Your task to perform on an android device: Install the Starbucks app Image 0: 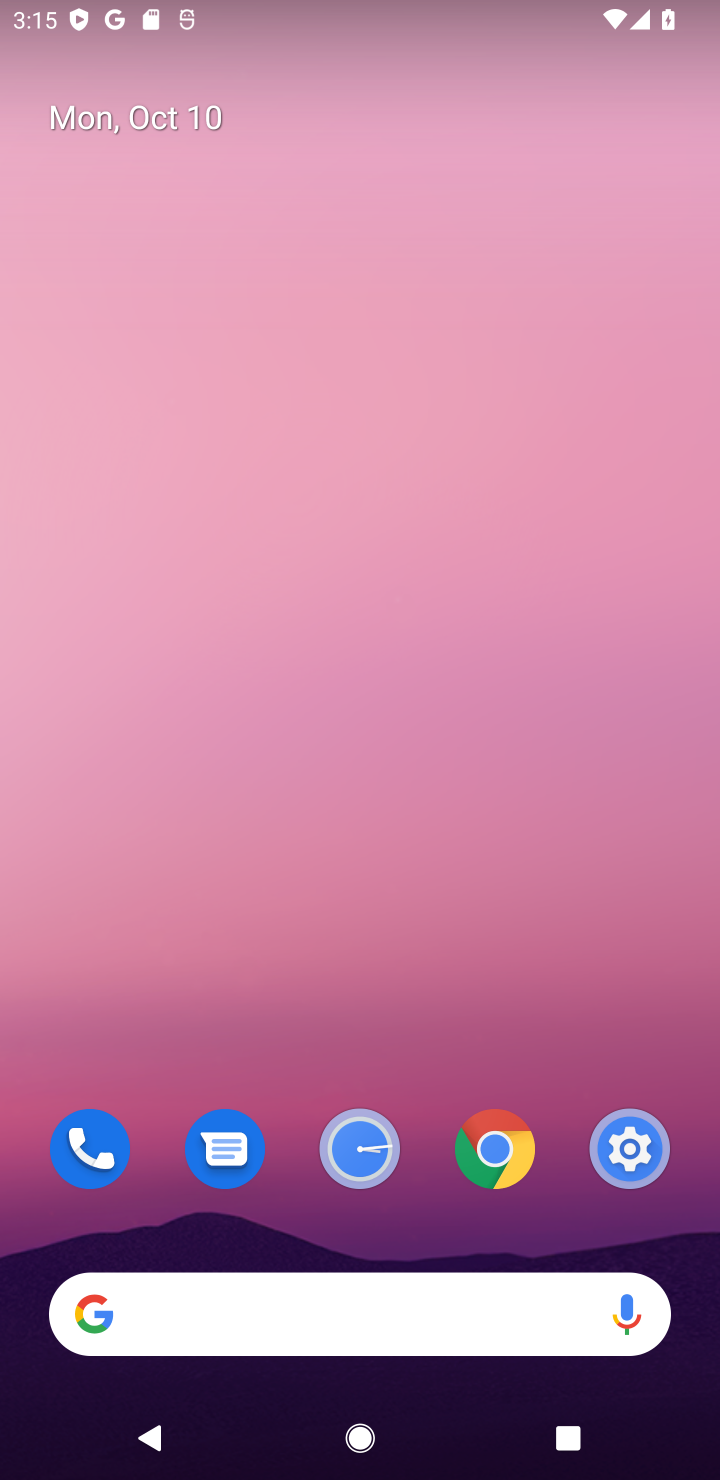
Step 0: drag from (440, 1246) to (466, 137)
Your task to perform on an android device: Install the Starbucks app Image 1: 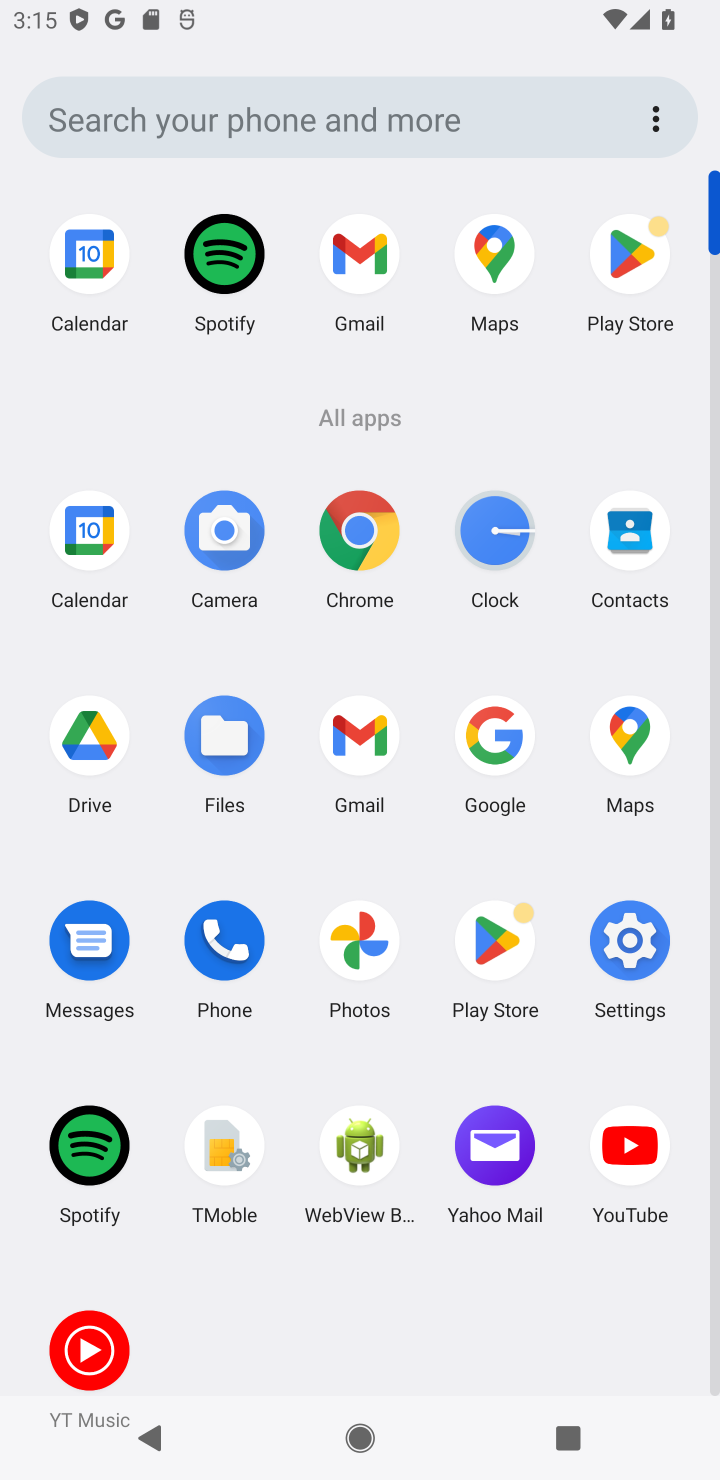
Step 1: click (608, 238)
Your task to perform on an android device: Install the Starbucks app Image 2: 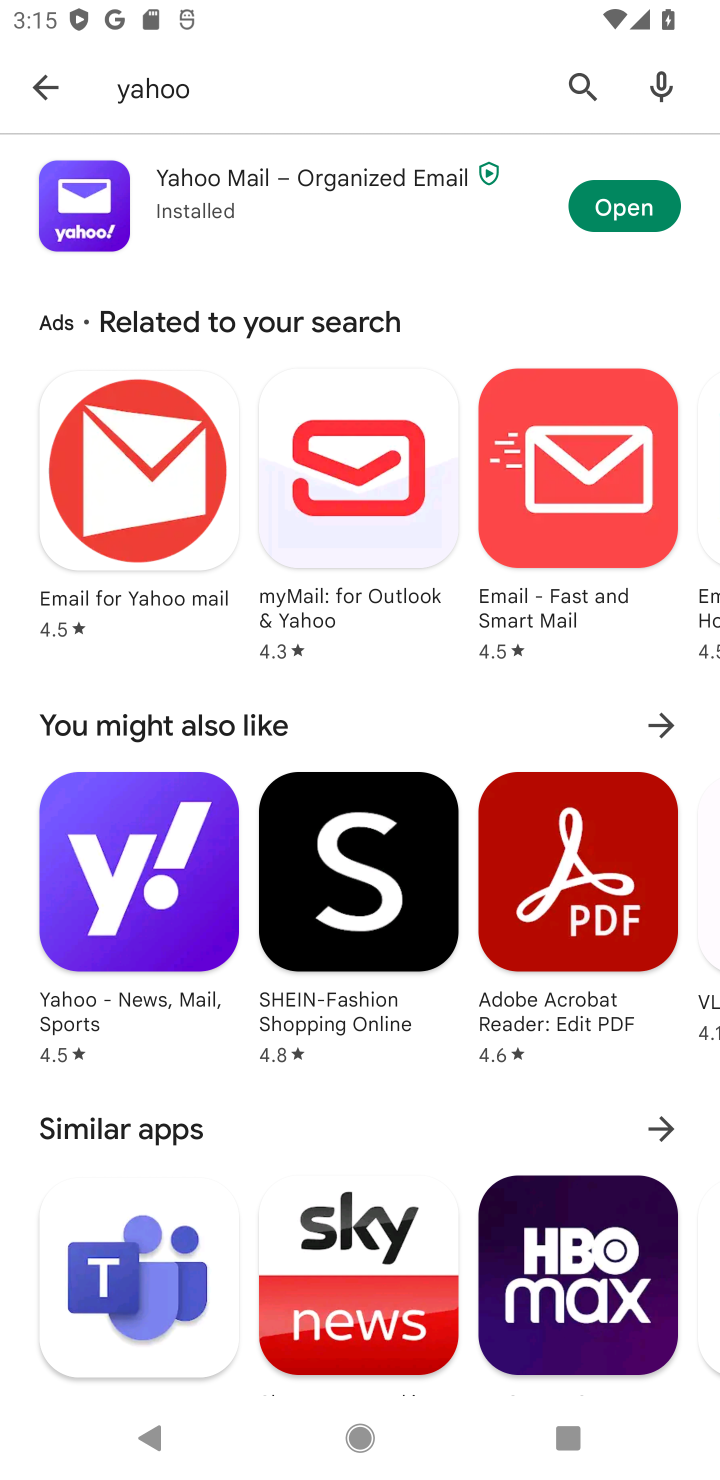
Step 2: click (566, 95)
Your task to perform on an android device: Install the Starbucks app Image 3: 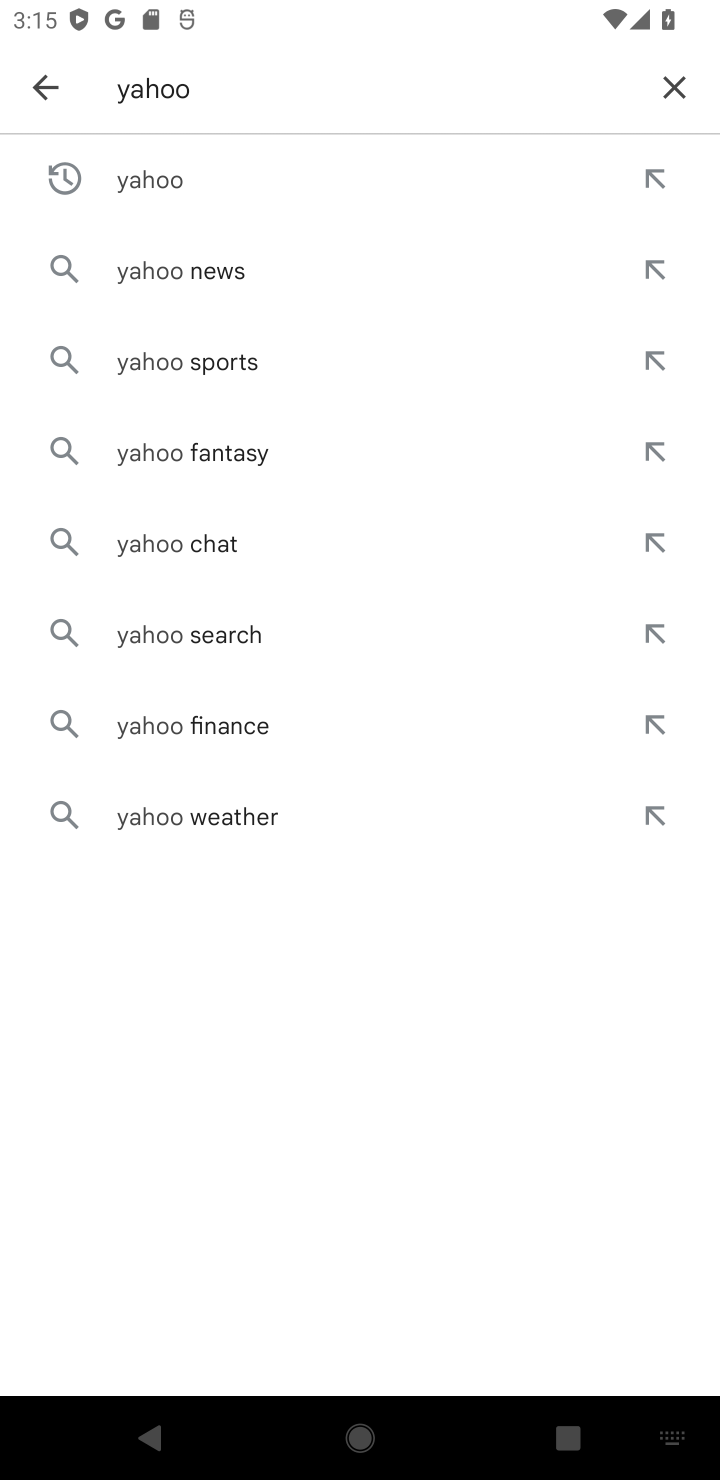
Step 3: click (653, 95)
Your task to perform on an android device: Install the Starbucks app Image 4: 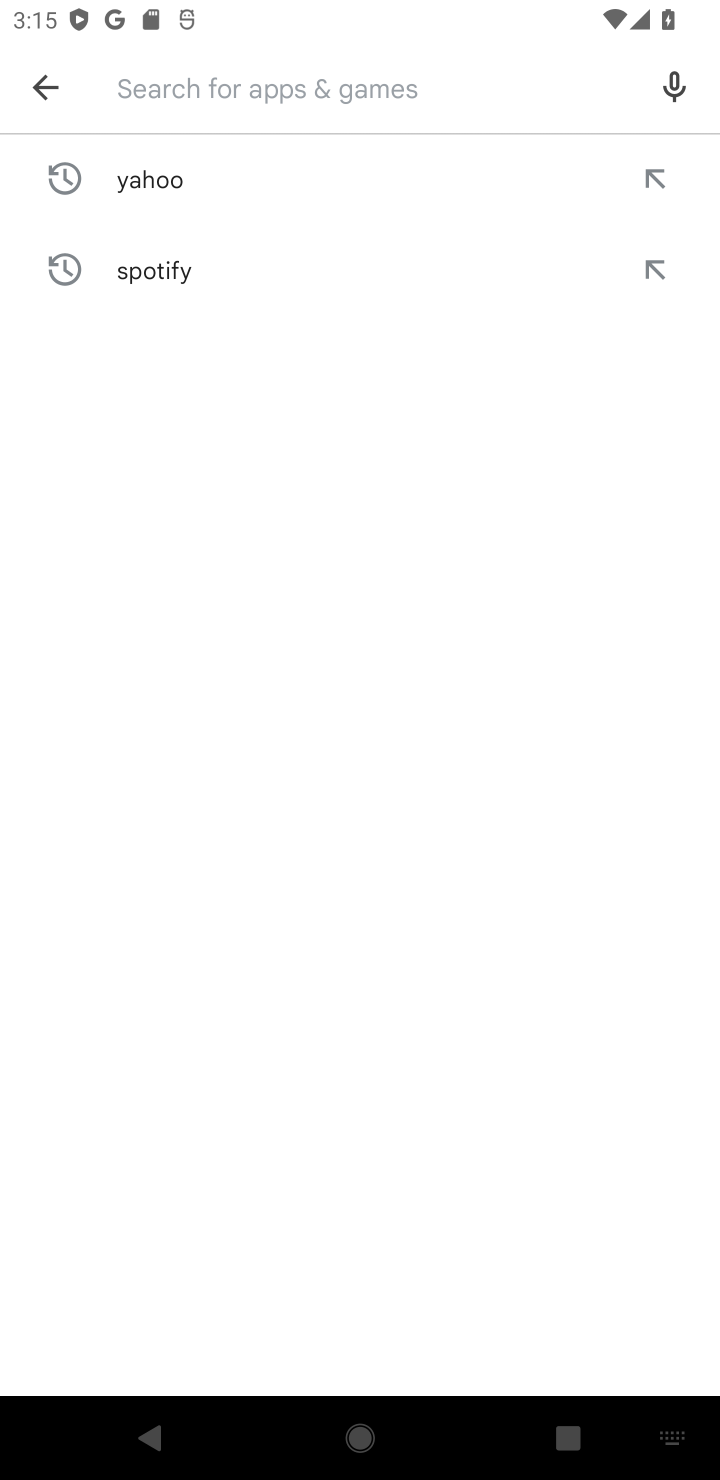
Step 4: type " Starbucks app"
Your task to perform on an android device: Install the Starbucks app Image 5: 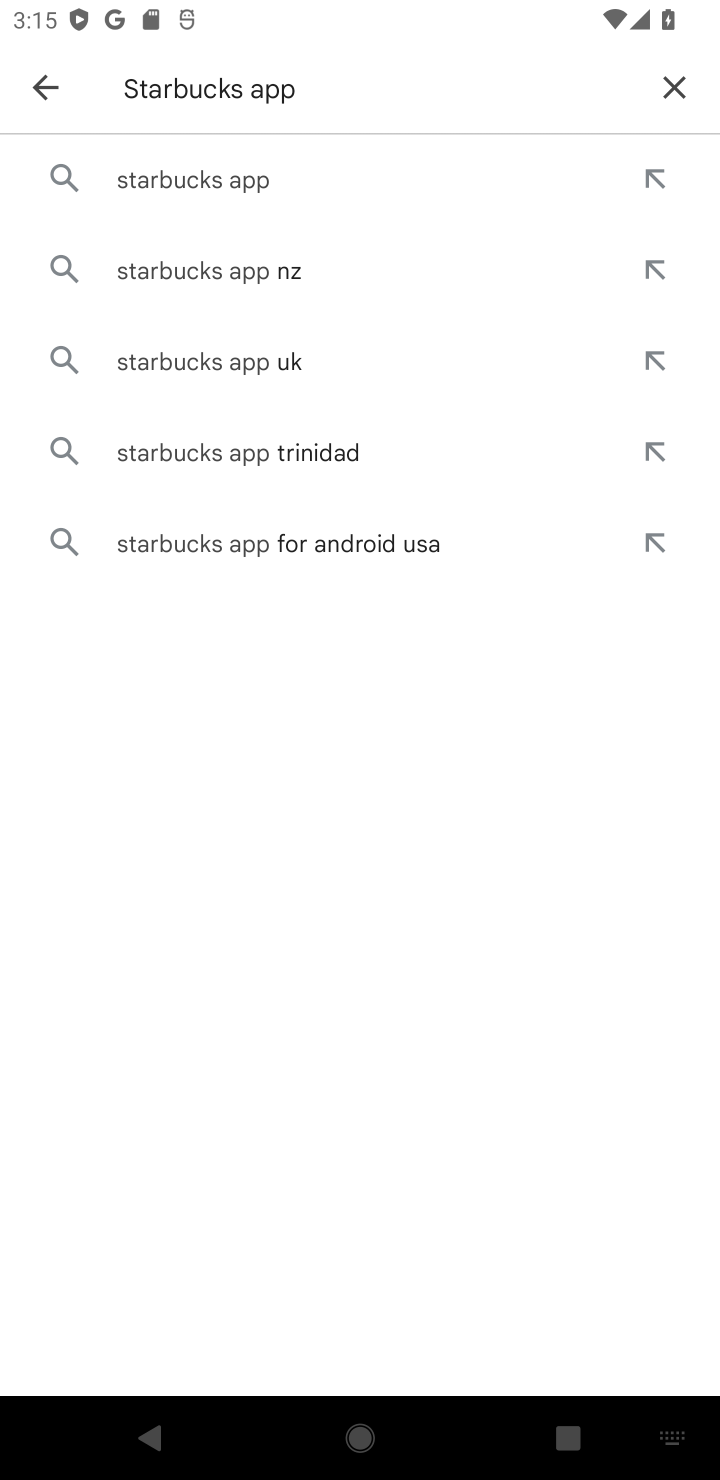
Step 5: click (182, 204)
Your task to perform on an android device: Install the Starbucks app Image 6: 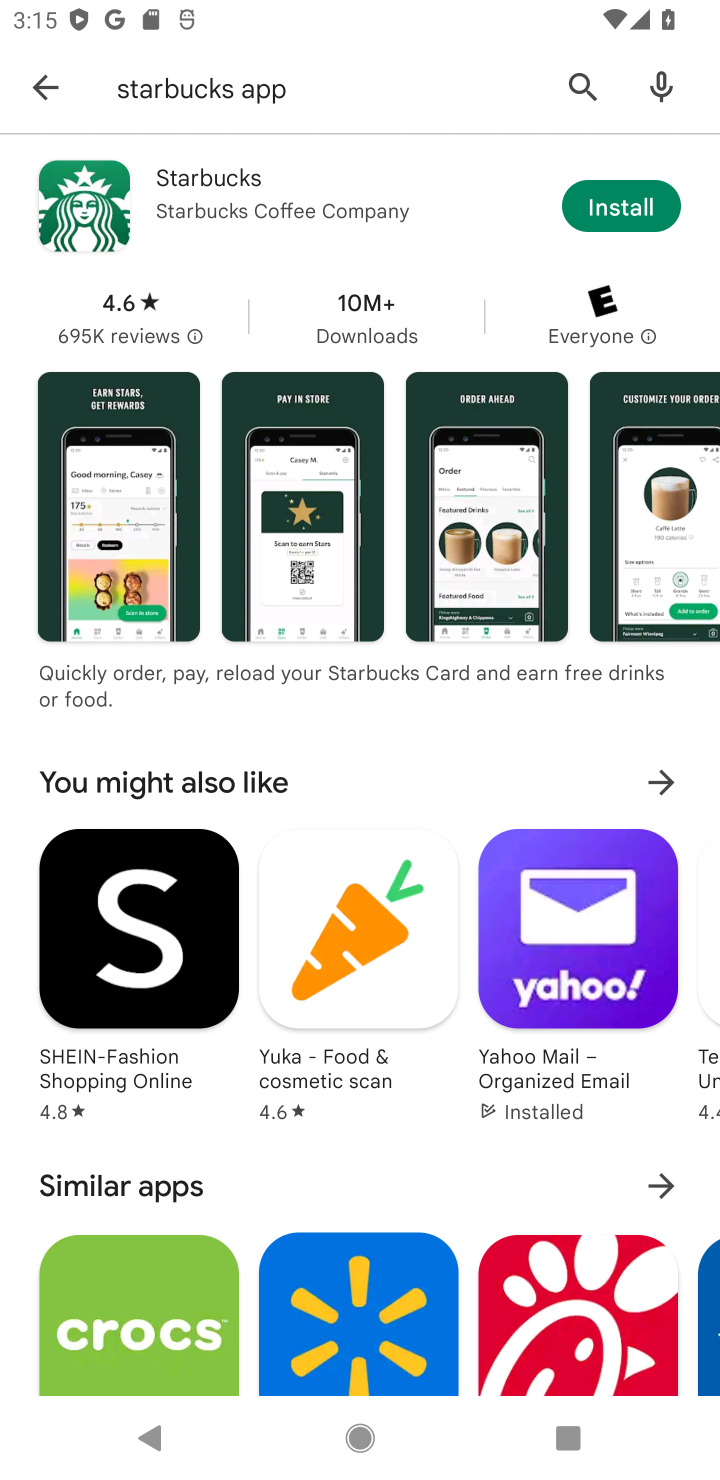
Step 6: click (580, 210)
Your task to perform on an android device: Install the Starbucks app Image 7: 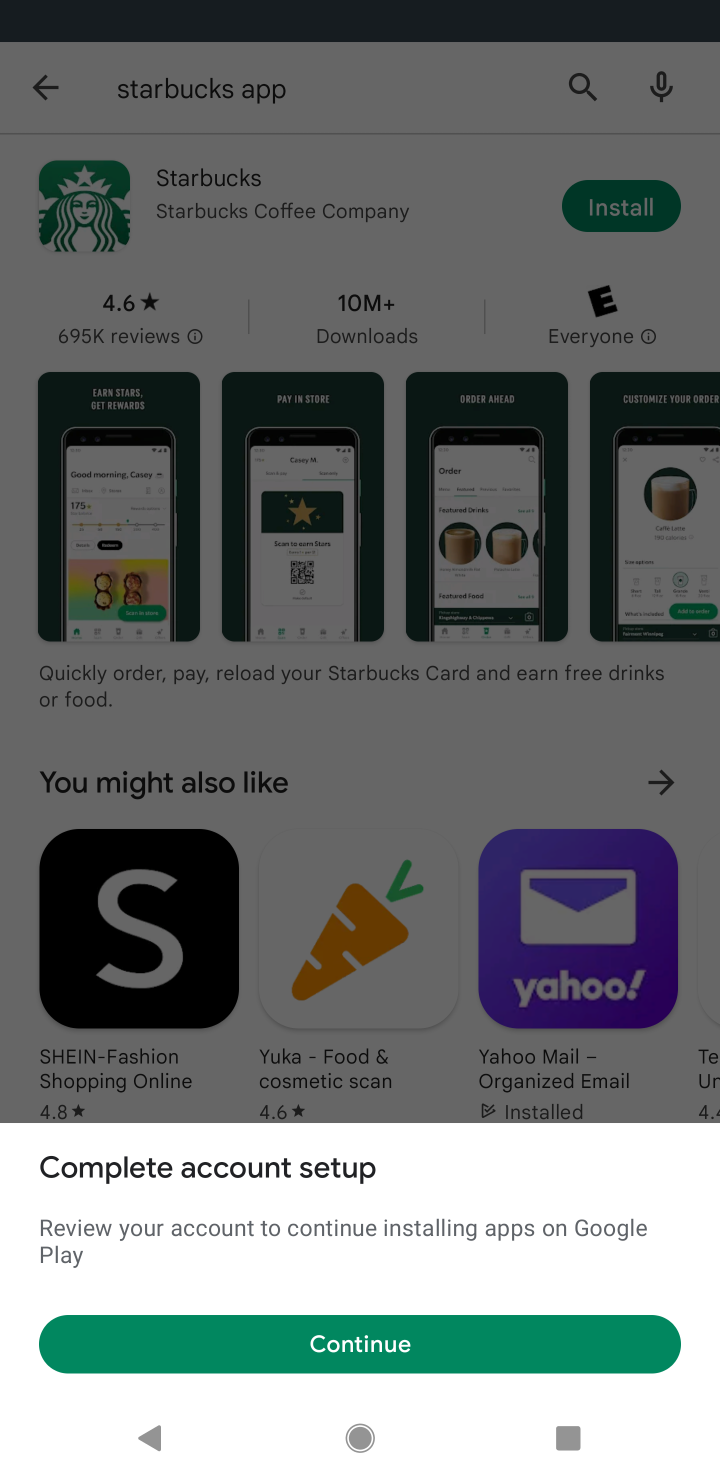
Step 7: click (168, 1337)
Your task to perform on an android device: Install the Starbucks app Image 8: 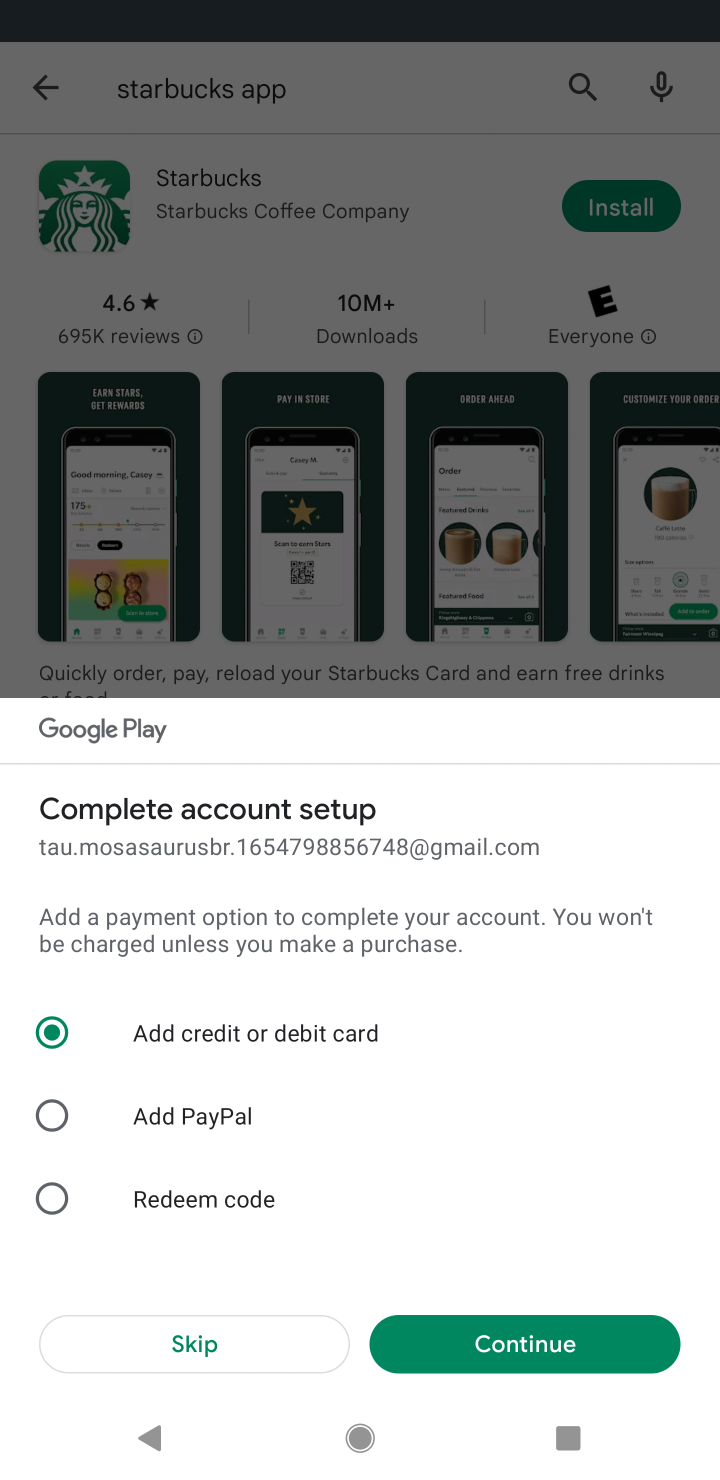
Step 8: click (256, 1333)
Your task to perform on an android device: Install the Starbucks app Image 9: 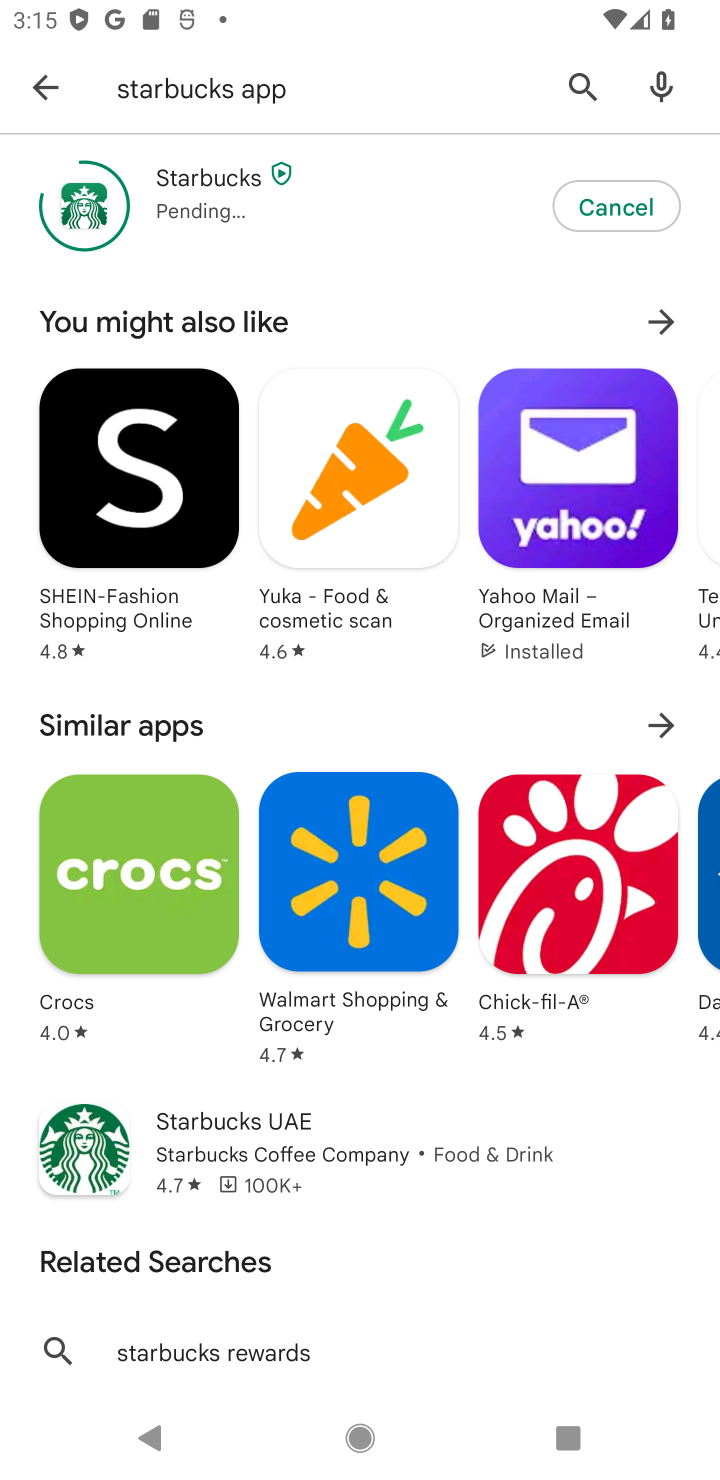
Step 9: task complete